Your task to perform on an android device: move a message to another label in the gmail app Image 0: 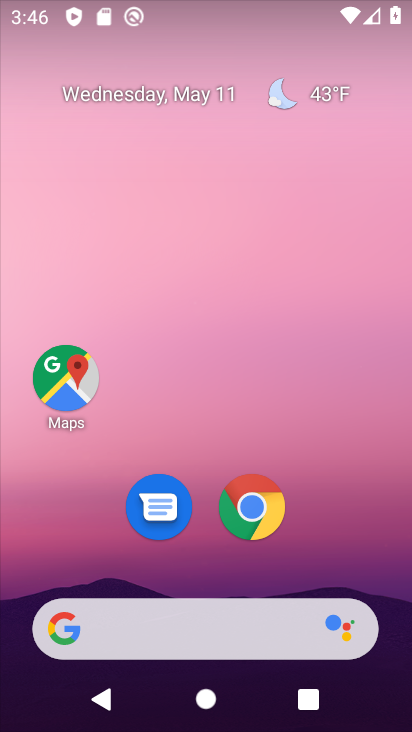
Step 0: drag from (398, 630) to (346, 80)
Your task to perform on an android device: move a message to another label in the gmail app Image 1: 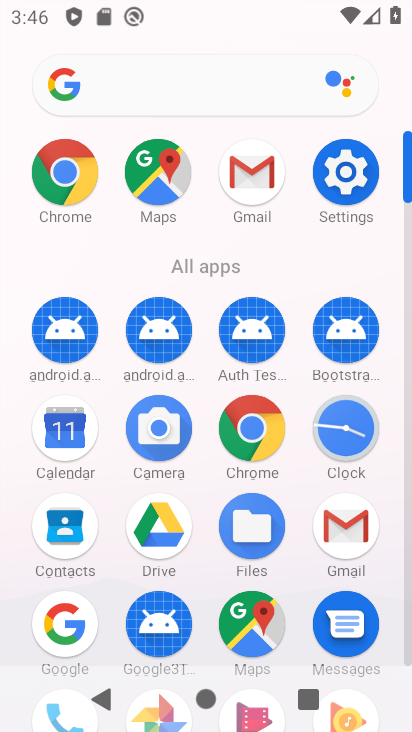
Step 1: click (407, 654)
Your task to perform on an android device: move a message to another label in the gmail app Image 2: 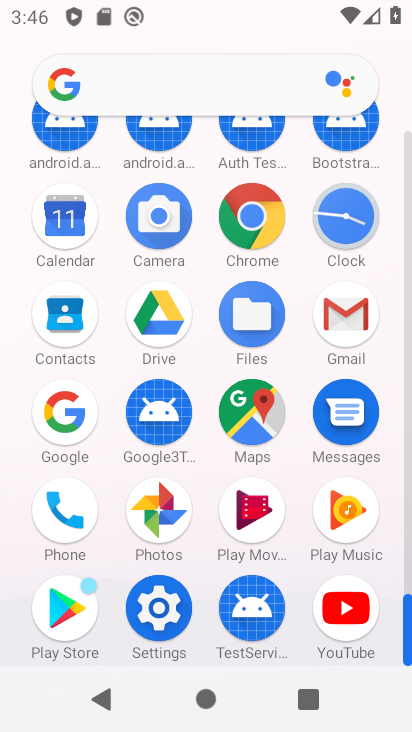
Step 2: click (343, 309)
Your task to perform on an android device: move a message to another label in the gmail app Image 3: 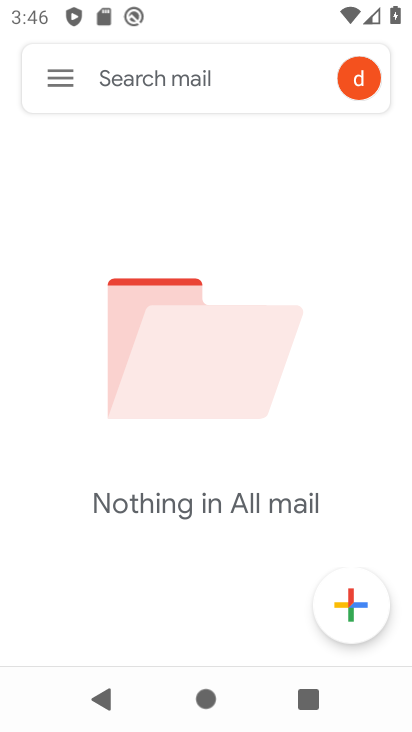
Step 3: click (62, 75)
Your task to perform on an android device: move a message to another label in the gmail app Image 4: 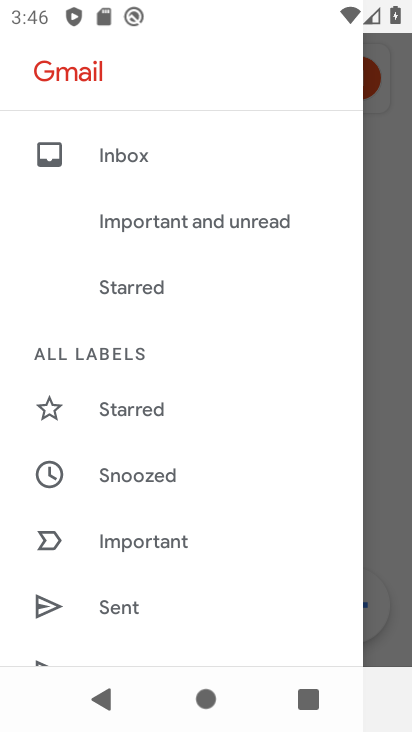
Step 4: drag from (222, 577) to (273, 111)
Your task to perform on an android device: move a message to another label in the gmail app Image 5: 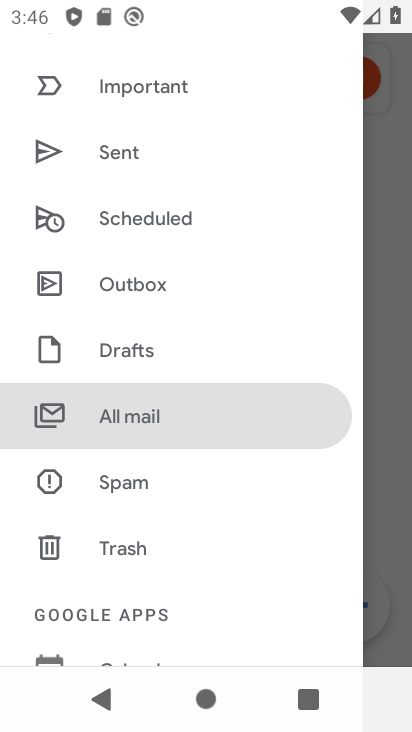
Step 5: click (149, 402)
Your task to perform on an android device: move a message to another label in the gmail app Image 6: 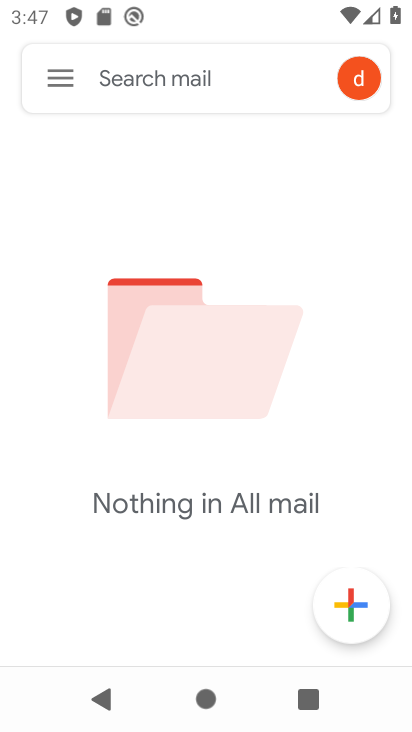
Step 6: task complete